Your task to perform on an android device: What's on my calendar today? Image 0: 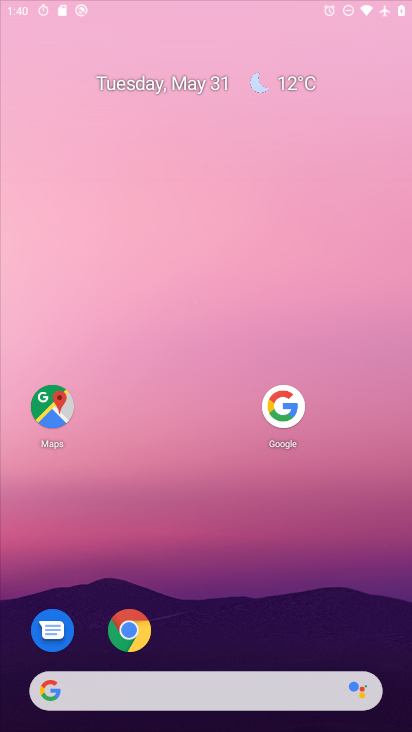
Step 0: press home button
Your task to perform on an android device: What's on my calendar today? Image 1: 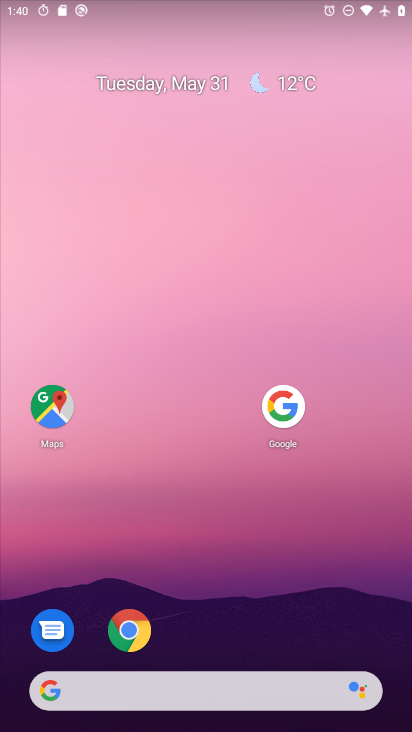
Step 1: drag from (276, 225) to (316, 81)
Your task to perform on an android device: What's on my calendar today? Image 2: 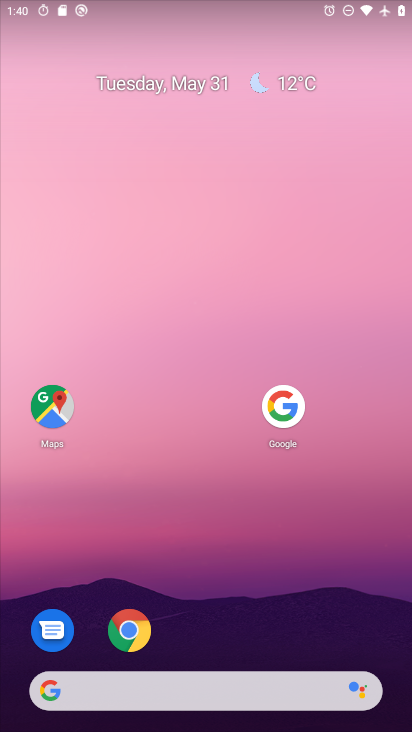
Step 2: drag from (179, 695) to (373, 53)
Your task to perform on an android device: What's on my calendar today? Image 3: 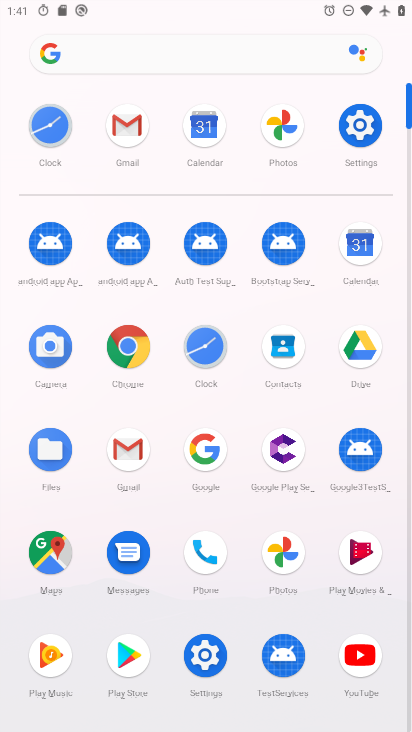
Step 3: click (201, 121)
Your task to perform on an android device: What's on my calendar today? Image 4: 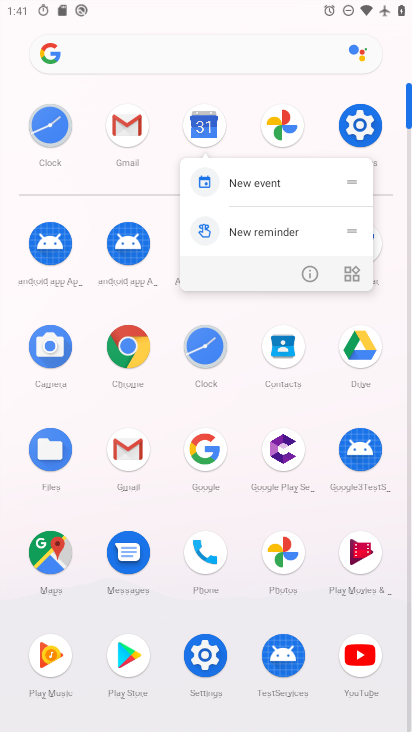
Step 4: click (207, 125)
Your task to perform on an android device: What's on my calendar today? Image 5: 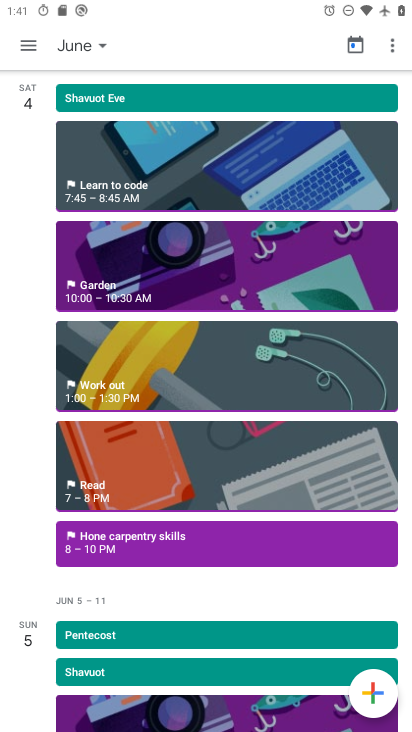
Step 5: click (72, 38)
Your task to perform on an android device: What's on my calendar today? Image 6: 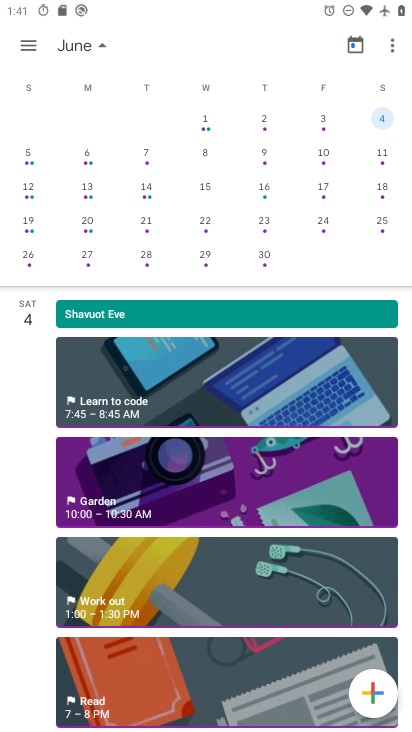
Step 6: drag from (96, 194) to (411, 222)
Your task to perform on an android device: What's on my calendar today? Image 7: 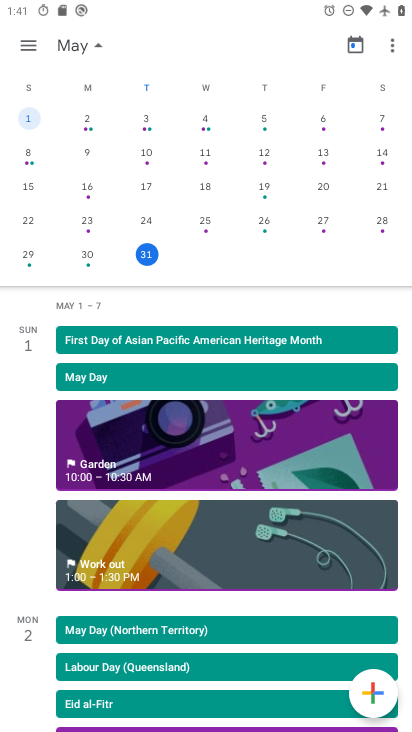
Step 7: click (149, 253)
Your task to perform on an android device: What's on my calendar today? Image 8: 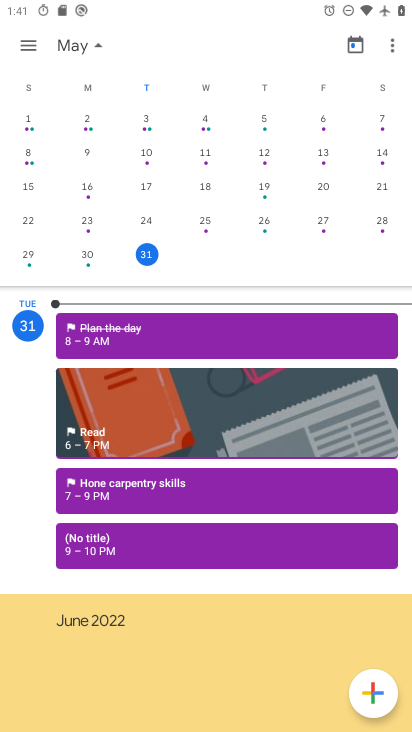
Step 8: click (28, 44)
Your task to perform on an android device: What's on my calendar today? Image 9: 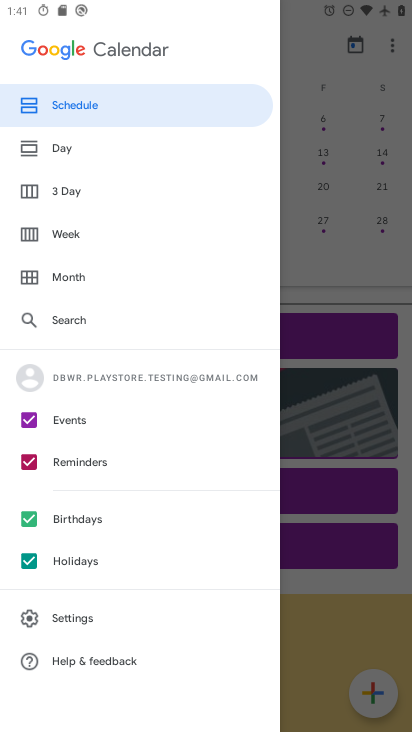
Step 9: click (64, 145)
Your task to perform on an android device: What's on my calendar today? Image 10: 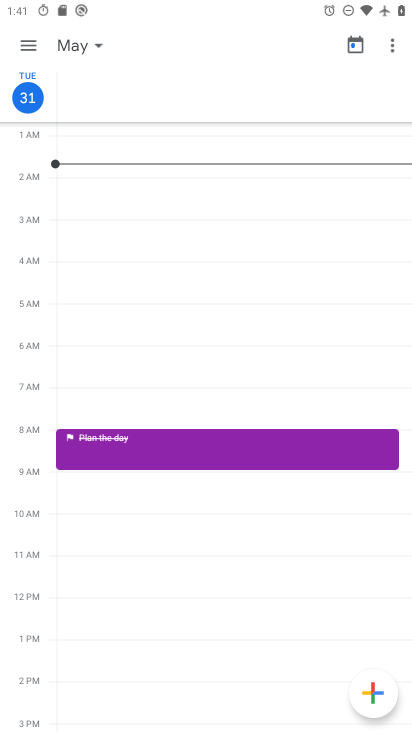
Step 10: click (24, 47)
Your task to perform on an android device: What's on my calendar today? Image 11: 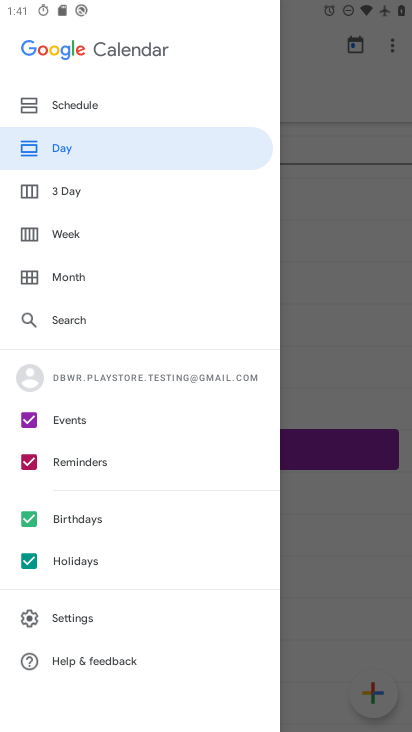
Step 11: click (78, 99)
Your task to perform on an android device: What's on my calendar today? Image 12: 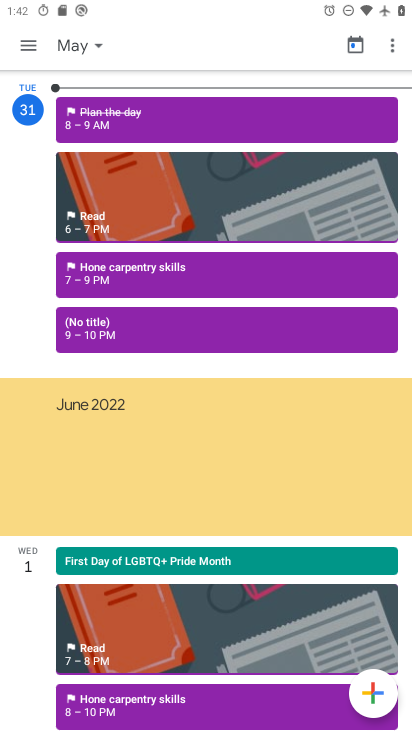
Step 12: task complete